Your task to perform on an android device: Open settings Image 0: 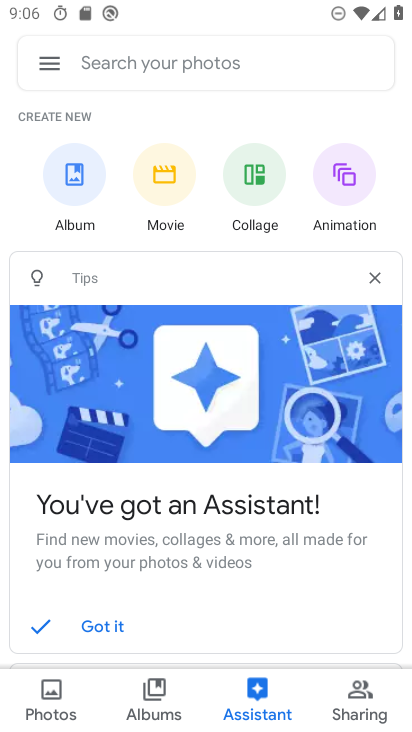
Step 0: press home button
Your task to perform on an android device: Open settings Image 1: 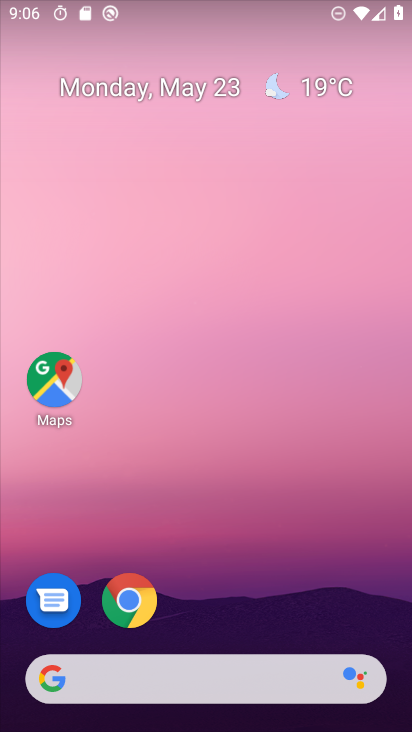
Step 1: drag from (32, 524) to (186, 166)
Your task to perform on an android device: Open settings Image 2: 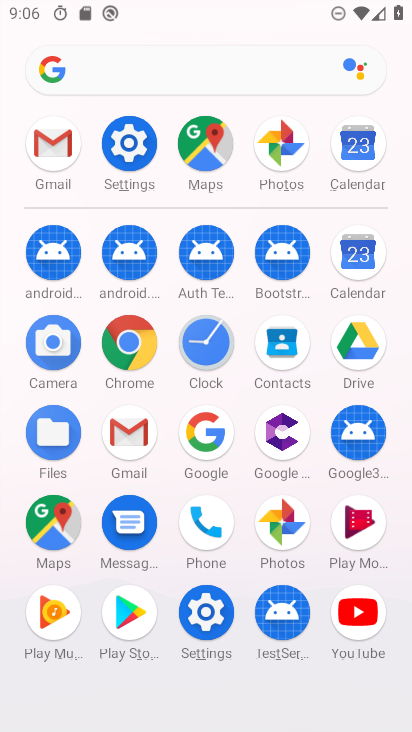
Step 2: click (119, 145)
Your task to perform on an android device: Open settings Image 3: 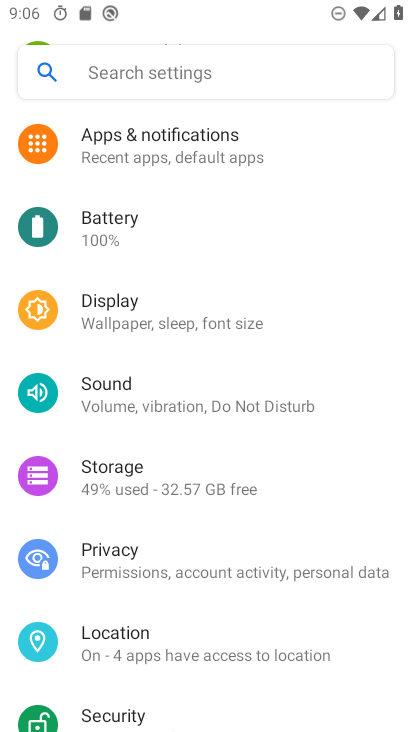
Step 3: task complete